Your task to perform on an android device: Go to settings Image 0: 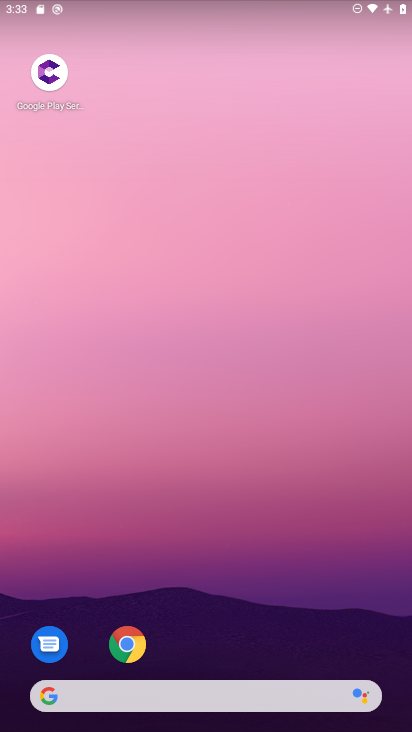
Step 0: drag from (231, 285) to (211, 70)
Your task to perform on an android device: Go to settings Image 1: 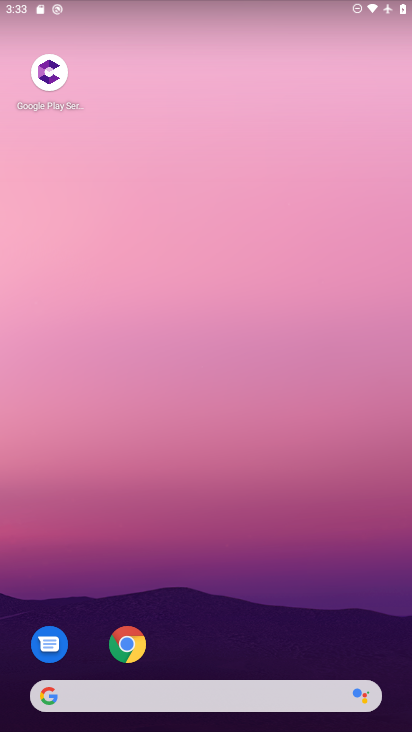
Step 1: drag from (252, 618) to (228, 29)
Your task to perform on an android device: Go to settings Image 2: 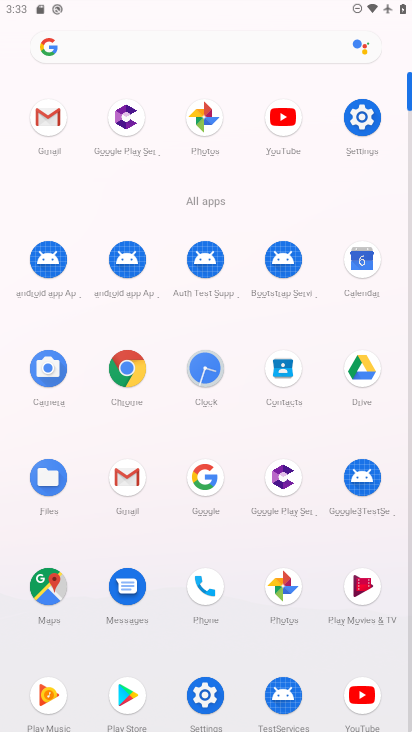
Step 2: click (361, 115)
Your task to perform on an android device: Go to settings Image 3: 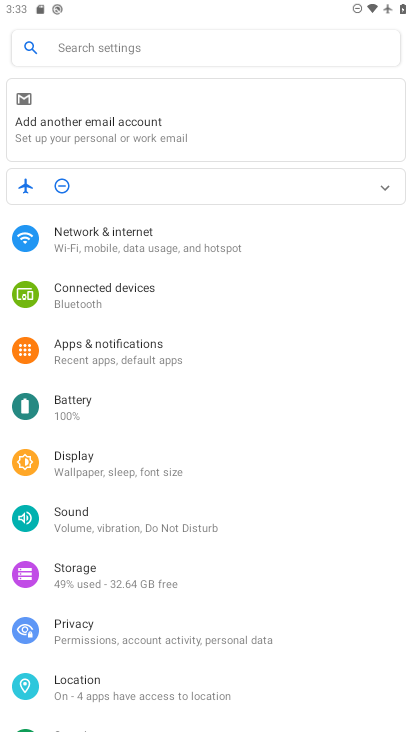
Step 3: task complete